Your task to perform on an android device: Search for seafood restaurants on Google Maps Image 0: 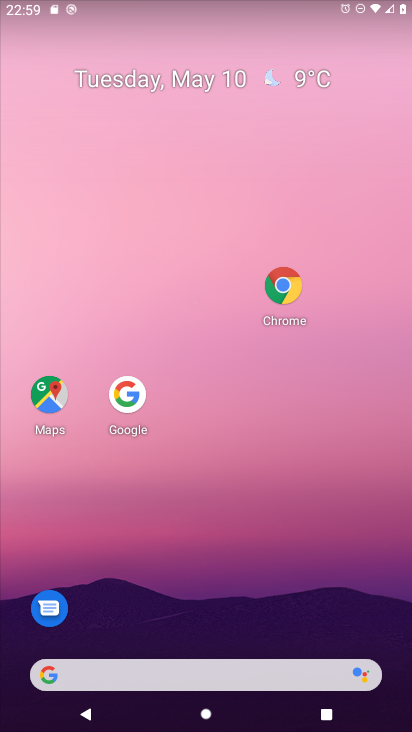
Step 0: drag from (154, 674) to (251, 267)
Your task to perform on an android device: Search for seafood restaurants on Google Maps Image 1: 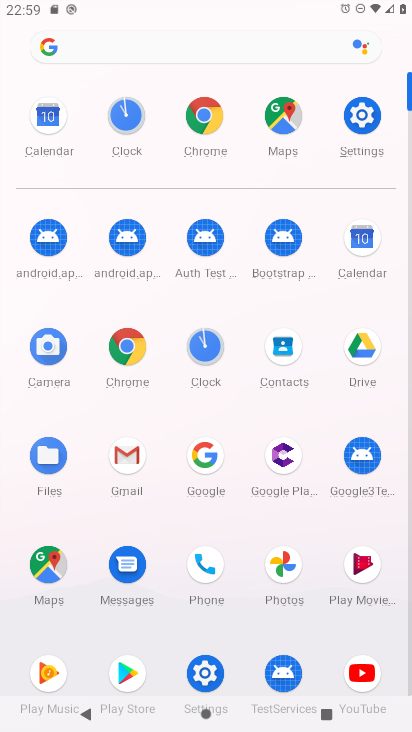
Step 1: click (53, 567)
Your task to perform on an android device: Search for seafood restaurants on Google Maps Image 2: 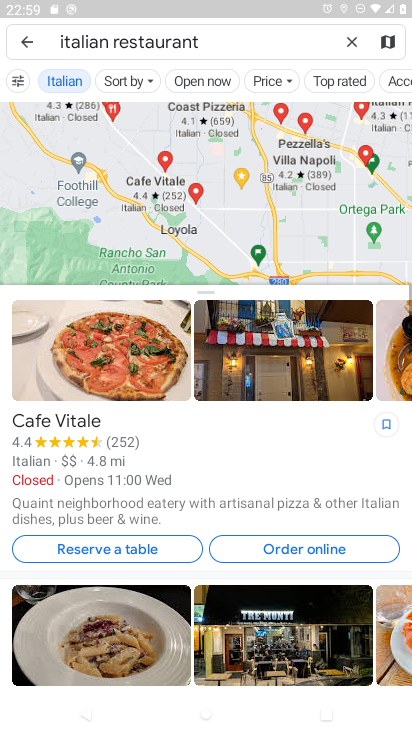
Step 2: click (352, 44)
Your task to perform on an android device: Search for seafood restaurants on Google Maps Image 3: 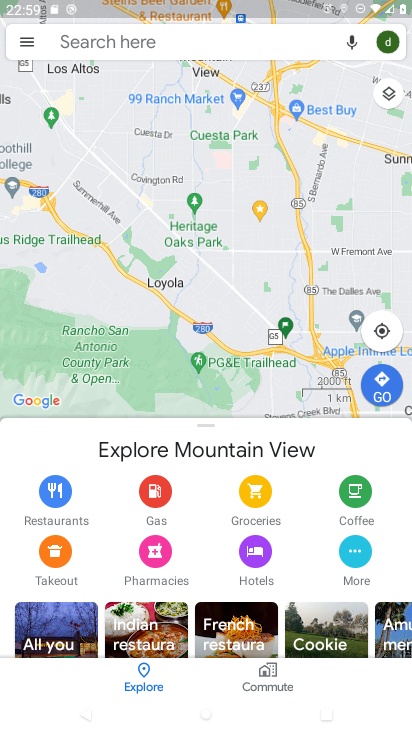
Step 3: click (239, 36)
Your task to perform on an android device: Search for seafood restaurants on Google Maps Image 4: 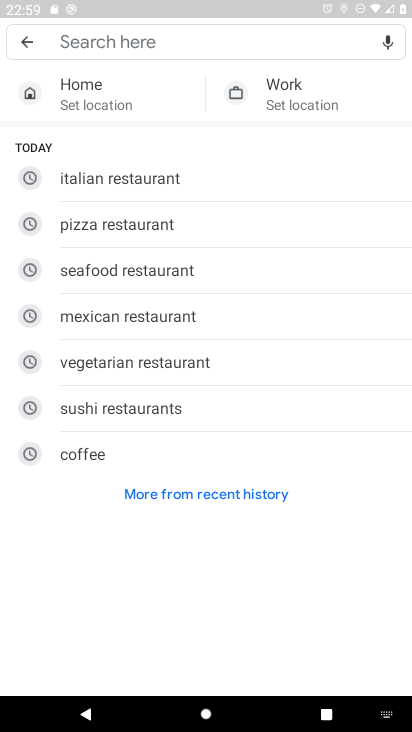
Step 4: click (140, 267)
Your task to perform on an android device: Search for seafood restaurants on Google Maps Image 5: 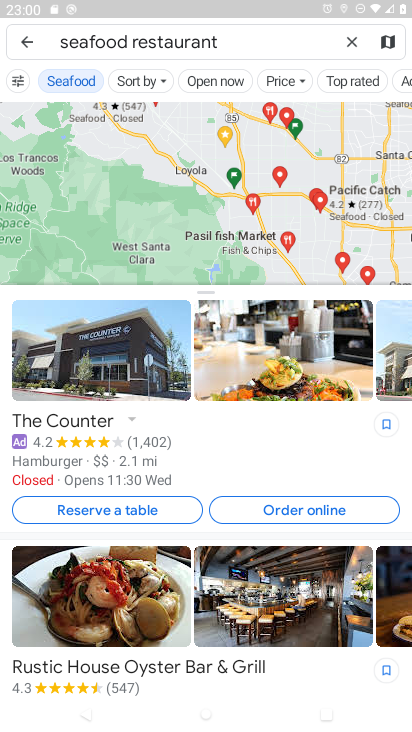
Step 5: task complete